Your task to perform on an android device: turn off notifications in google photos Image 0: 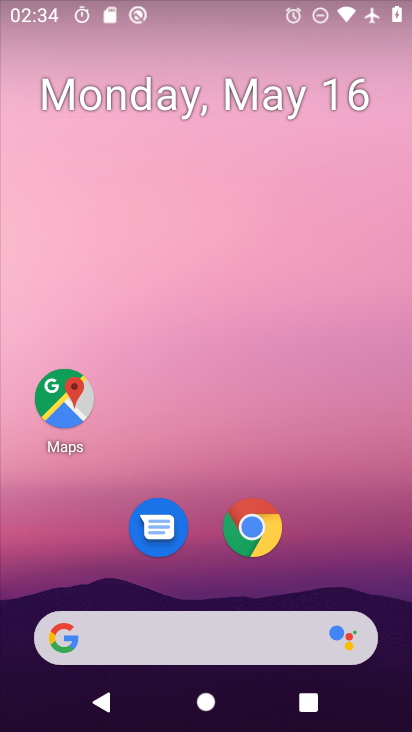
Step 0: press home button
Your task to perform on an android device: turn off notifications in google photos Image 1: 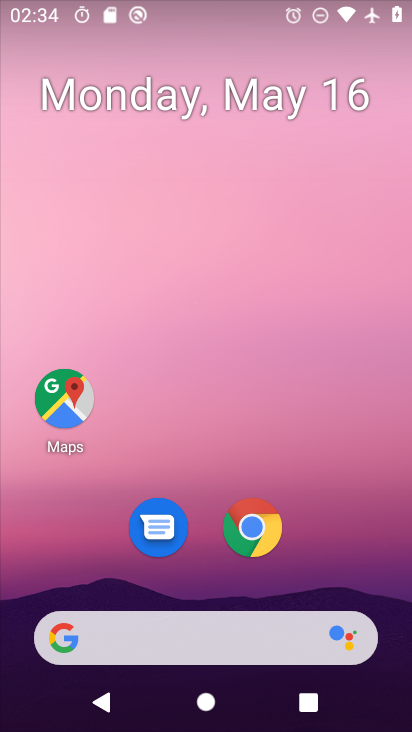
Step 1: drag from (175, 633) to (298, 277)
Your task to perform on an android device: turn off notifications in google photos Image 2: 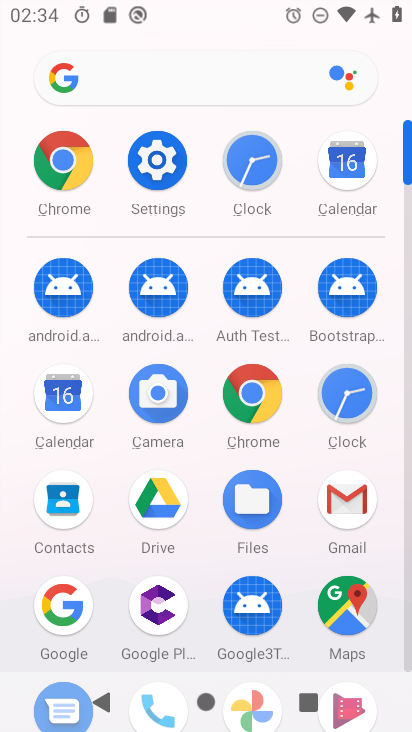
Step 2: drag from (189, 603) to (283, 249)
Your task to perform on an android device: turn off notifications in google photos Image 3: 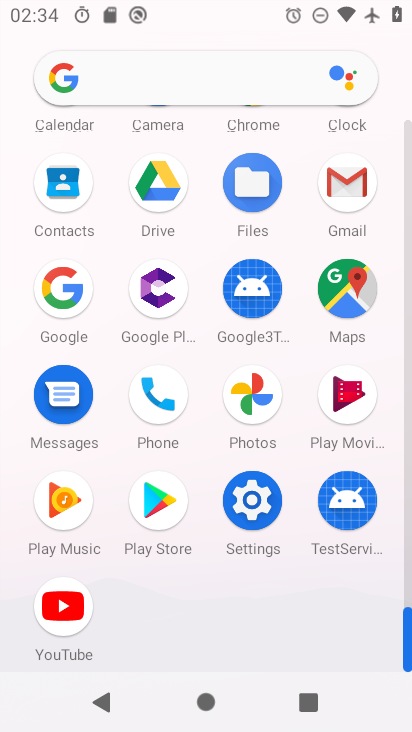
Step 3: click (237, 405)
Your task to perform on an android device: turn off notifications in google photos Image 4: 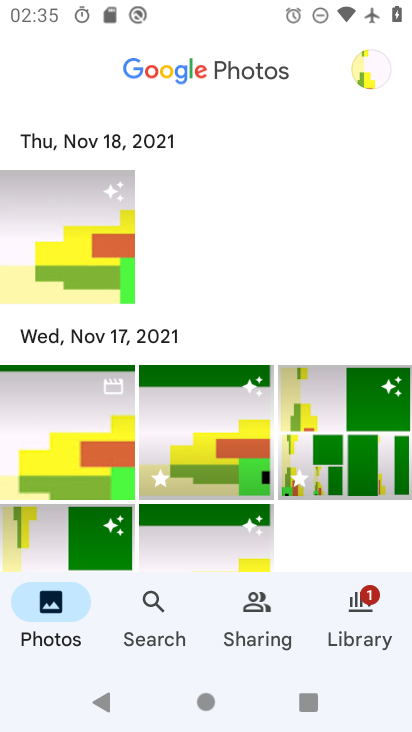
Step 4: click (367, 72)
Your task to perform on an android device: turn off notifications in google photos Image 5: 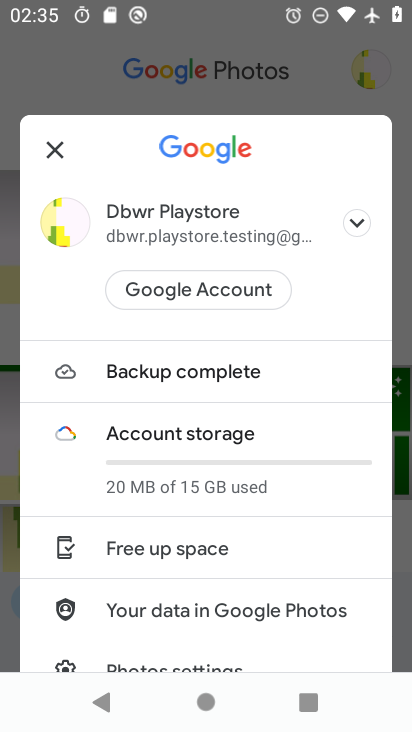
Step 5: drag from (176, 598) to (265, 347)
Your task to perform on an android device: turn off notifications in google photos Image 6: 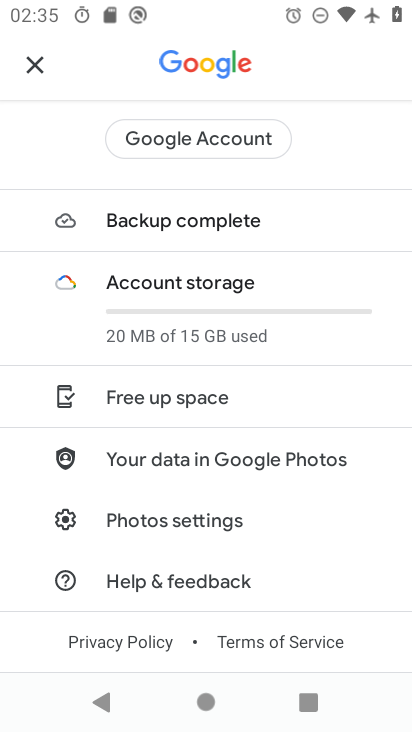
Step 6: click (176, 528)
Your task to perform on an android device: turn off notifications in google photos Image 7: 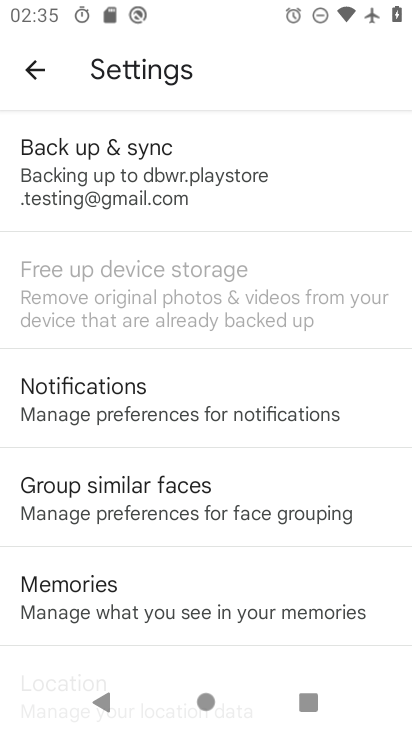
Step 7: click (174, 408)
Your task to perform on an android device: turn off notifications in google photos Image 8: 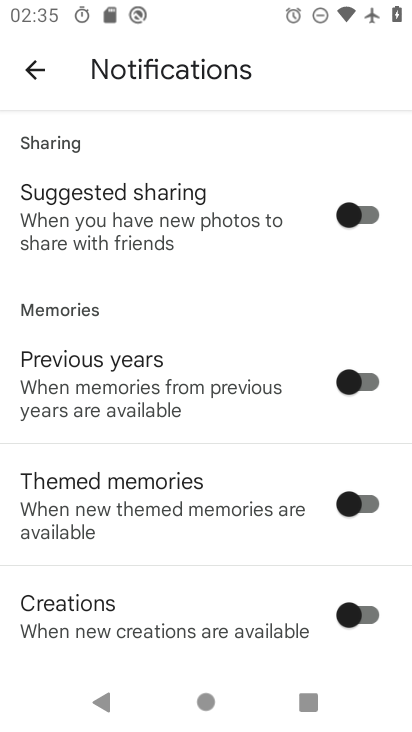
Step 8: drag from (142, 596) to (273, 191)
Your task to perform on an android device: turn off notifications in google photos Image 9: 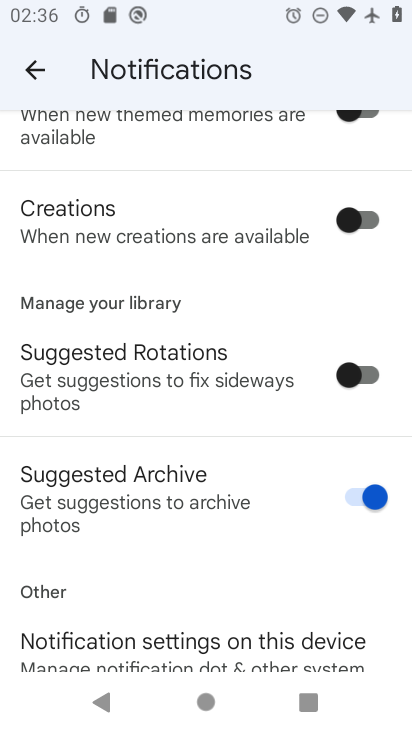
Step 9: drag from (163, 596) to (252, 250)
Your task to perform on an android device: turn off notifications in google photos Image 10: 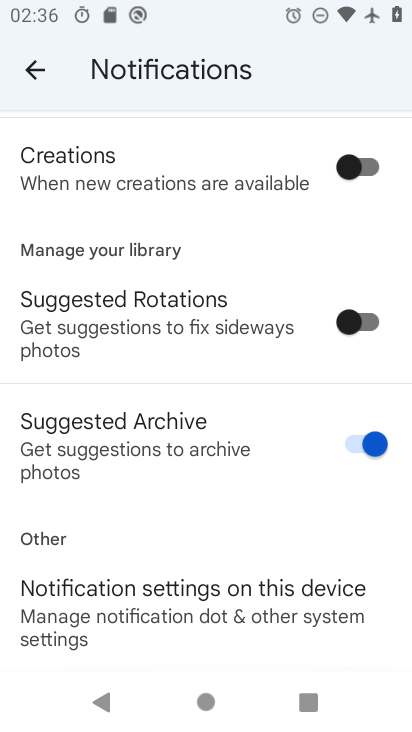
Step 10: click (201, 590)
Your task to perform on an android device: turn off notifications in google photos Image 11: 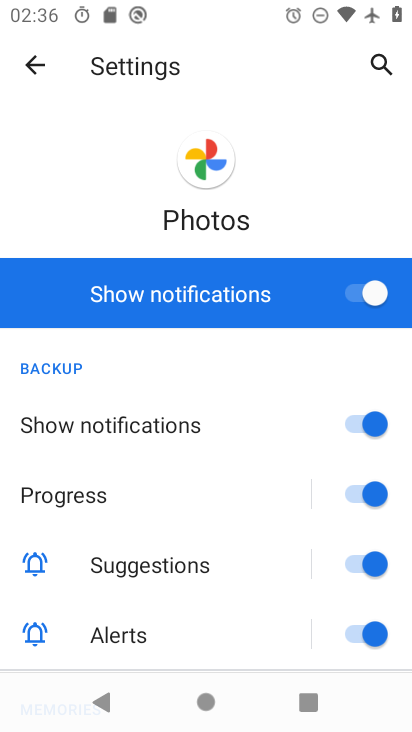
Step 11: click (359, 296)
Your task to perform on an android device: turn off notifications in google photos Image 12: 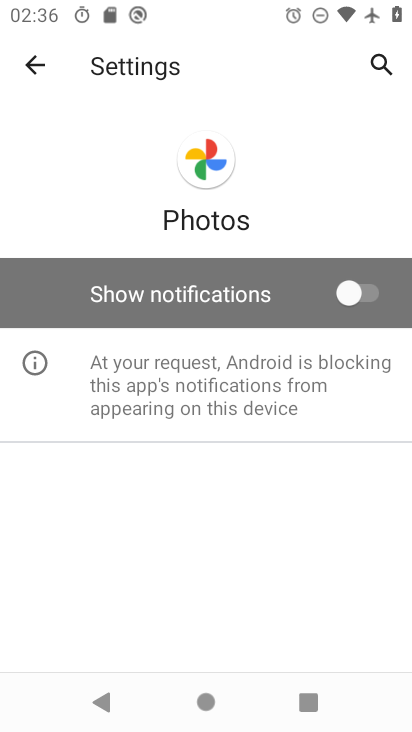
Step 12: task complete